Your task to perform on an android device: change the clock display to analog Image 0: 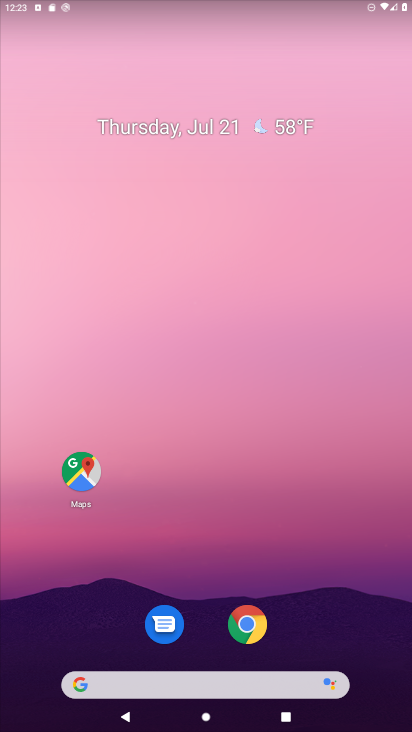
Step 0: drag from (210, 597) to (213, 238)
Your task to perform on an android device: change the clock display to analog Image 1: 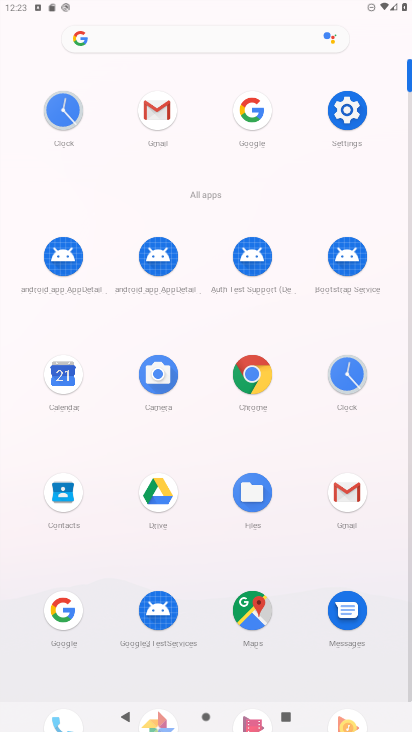
Step 1: click (334, 376)
Your task to perform on an android device: change the clock display to analog Image 2: 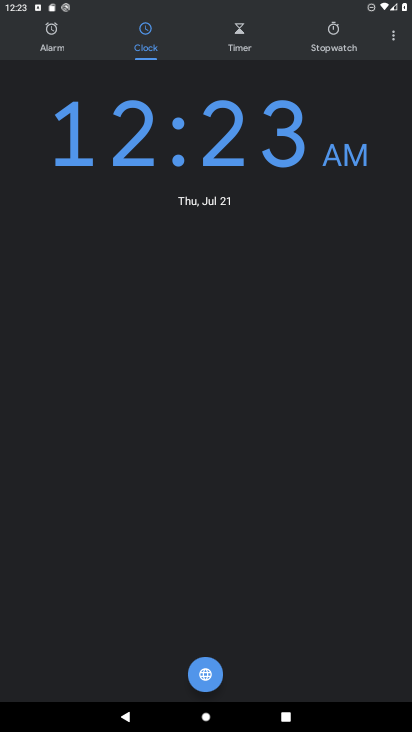
Step 2: click (383, 34)
Your task to perform on an android device: change the clock display to analog Image 3: 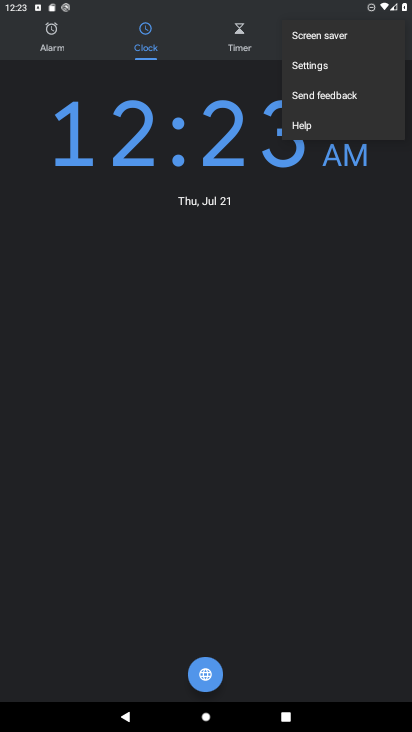
Step 3: click (339, 60)
Your task to perform on an android device: change the clock display to analog Image 4: 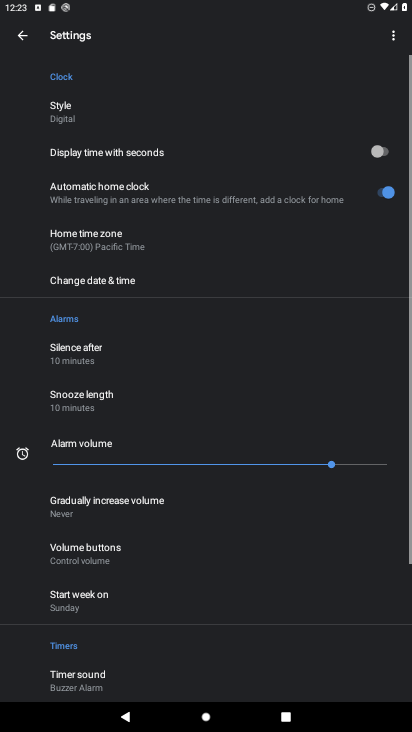
Step 4: click (101, 101)
Your task to perform on an android device: change the clock display to analog Image 5: 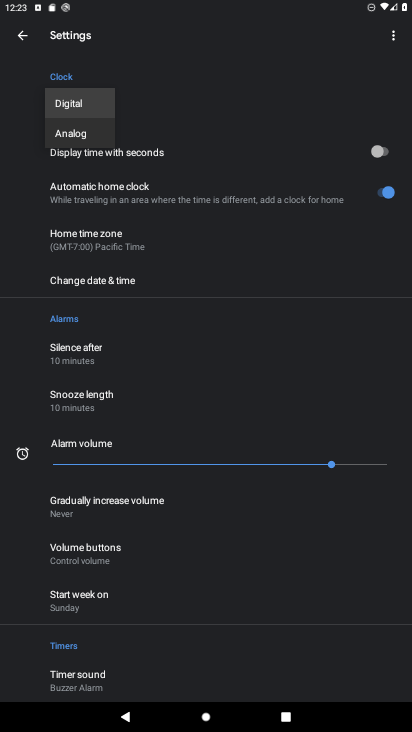
Step 5: click (61, 138)
Your task to perform on an android device: change the clock display to analog Image 6: 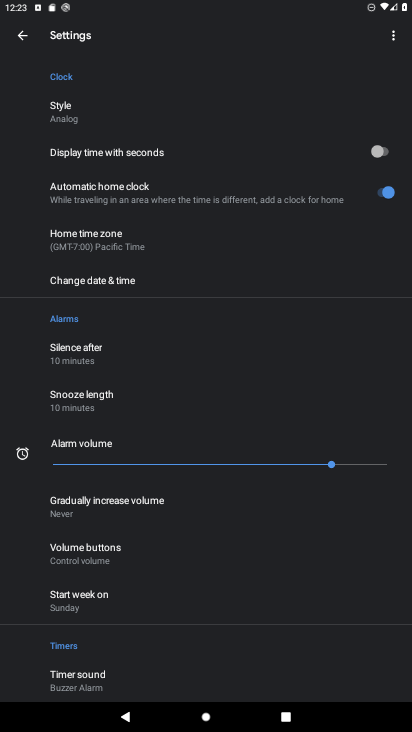
Step 6: task complete